Your task to perform on an android device: open chrome and create a bookmark for the current page Image 0: 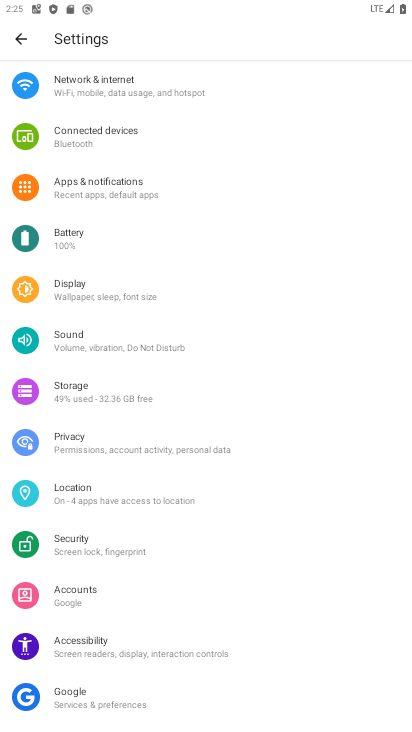
Step 0: press home button
Your task to perform on an android device: open chrome and create a bookmark for the current page Image 1: 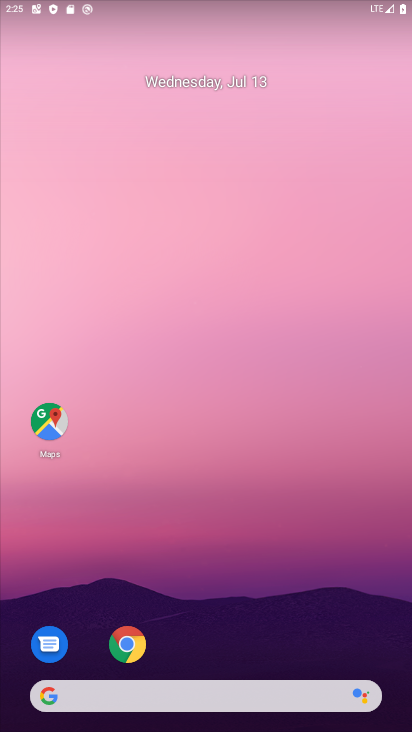
Step 1: click (125, 645)
Your task to perform on an android device: open chrome and create a bookmark for the current page Image 2: 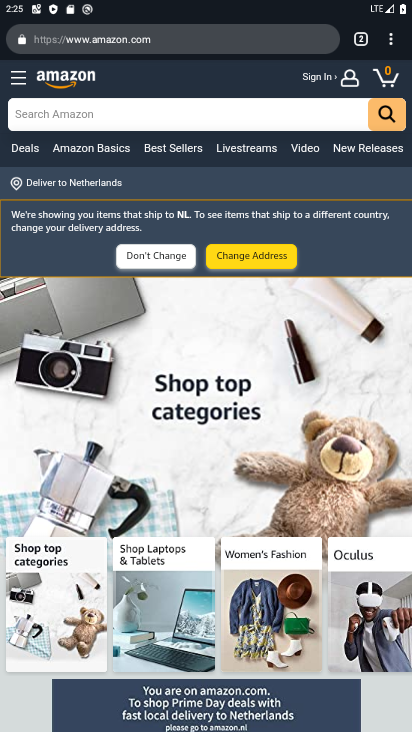
Step 2: click (392, 39)
Your task to perform on an android device: open chrome and create a bookmark for the current page Image 3: 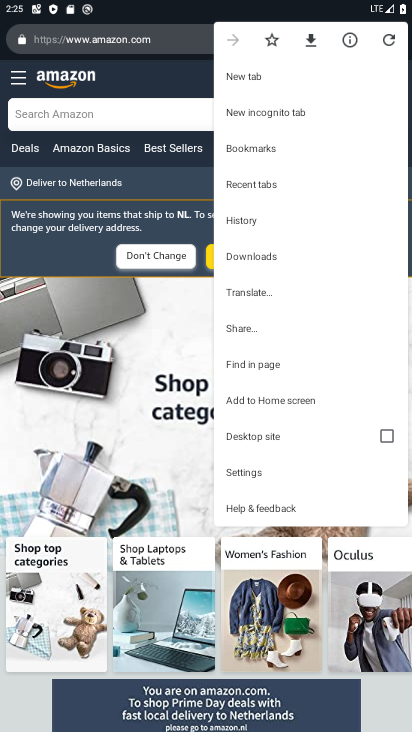
Step 3: click (272, 38)
Your task to perform on an android device: open chrome and create a bookmark for the current page Image 4: 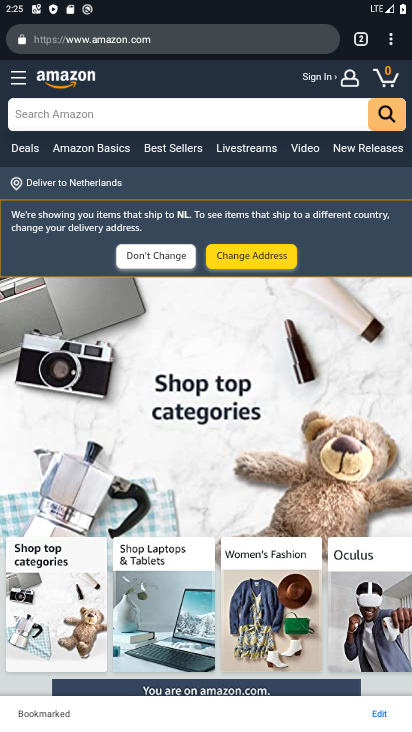
Step 4: task complete